Your task to perform on an android device: Clear the shopping cart on target. Add "macbook" to the cart on target, then select checkout. Image 0: 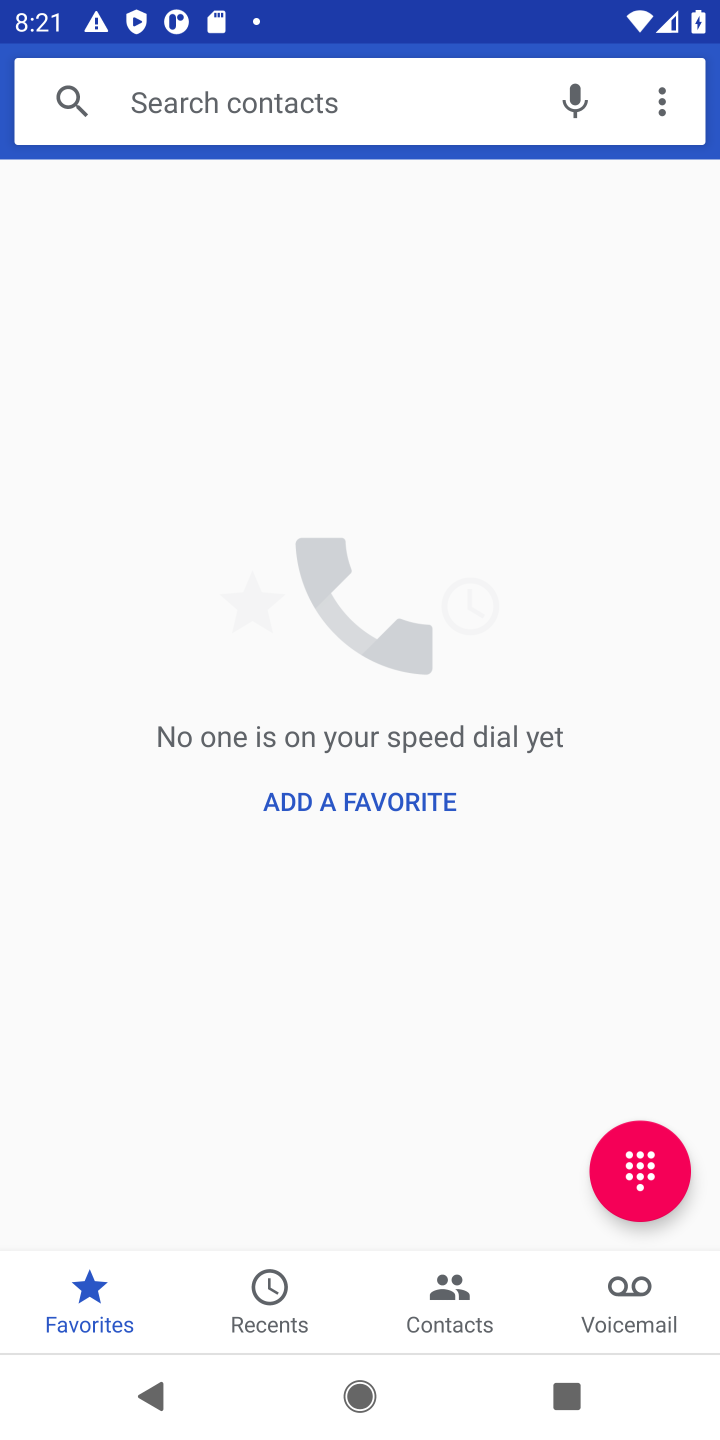
Step 0: press home button
Your task to perform on an android device: Clear the shopping cart on target. Add "macbook" to the cart on target, then select checkout. Image 1: 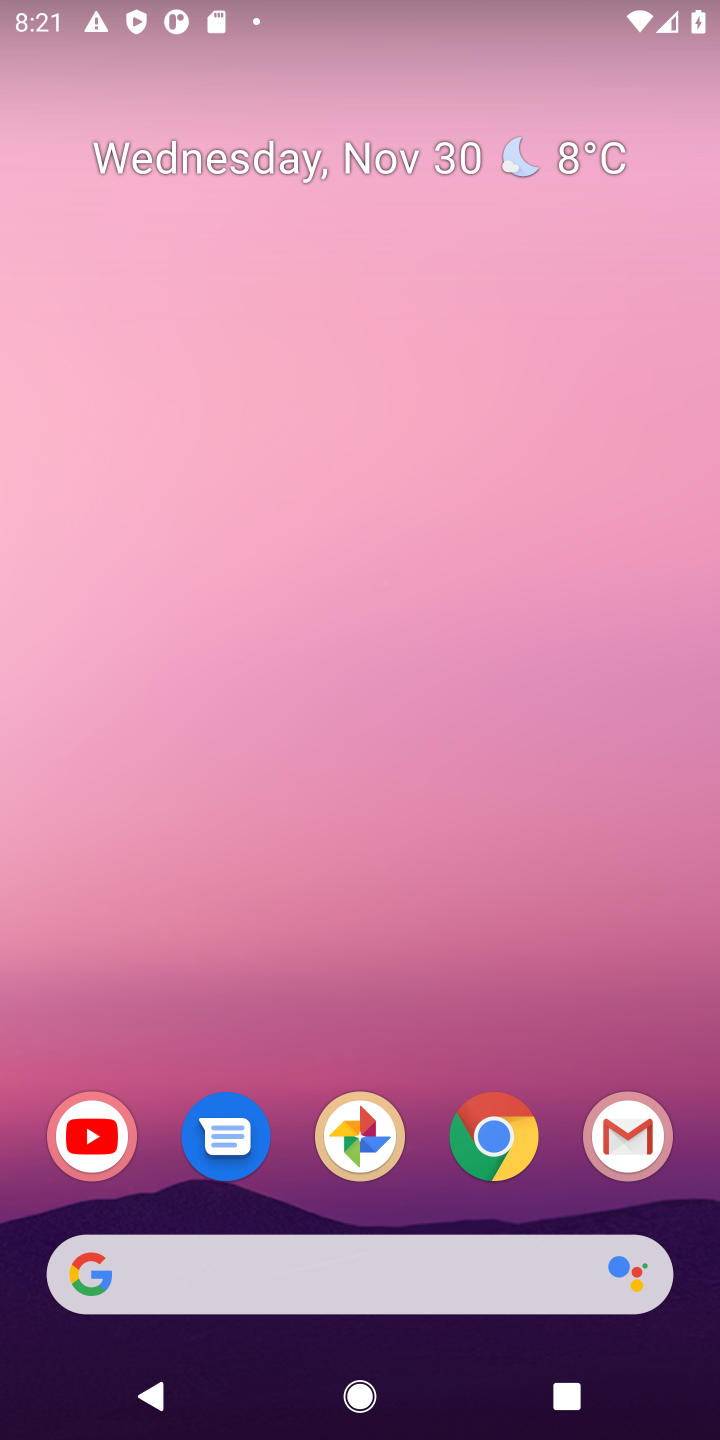
Step 1: click (509, 1133)
Your task to perform on an android device: Clear the shopping cart on target. Add "macbook" to the cart on target, then select checkout. Image 2: 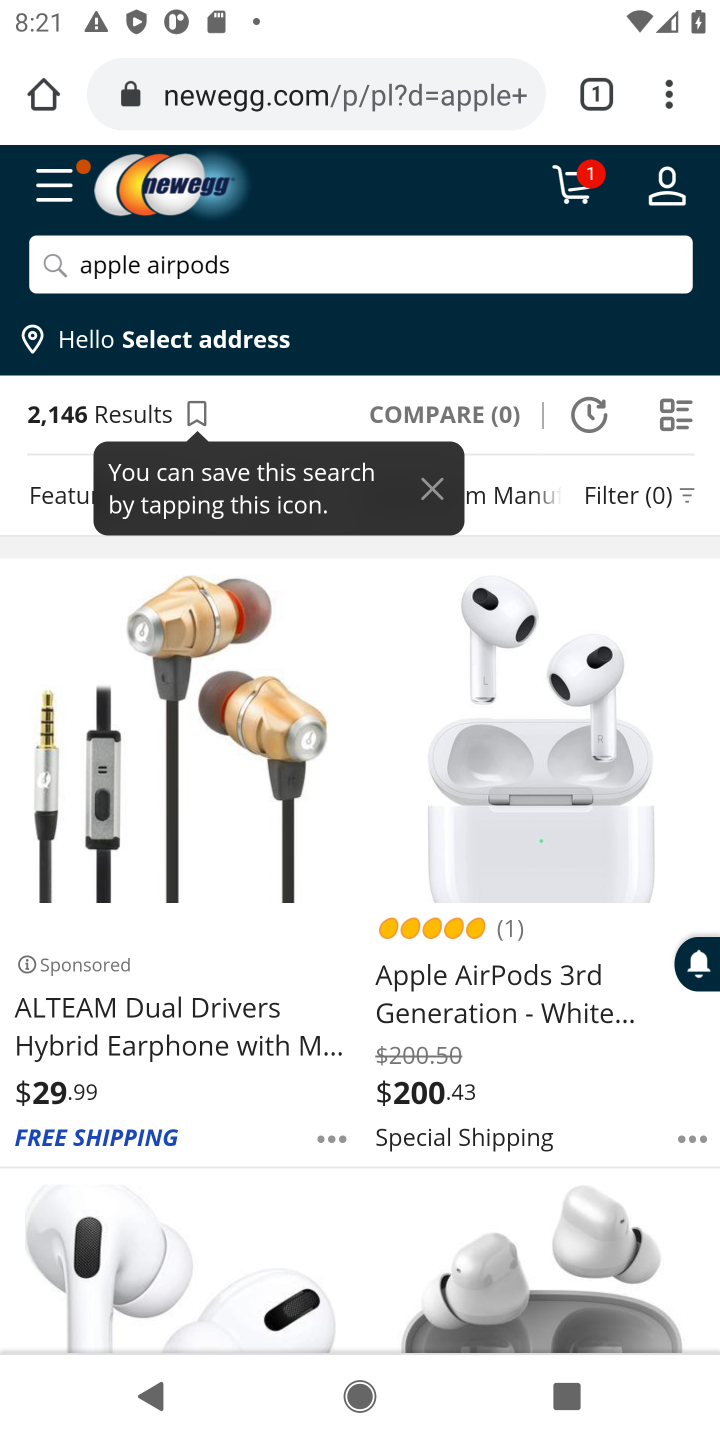
Step 2: click (268, 102)
Your task to perform on an android device: Clear the shopping cart on target. Add "macbook" to the cart on target, then select checkout. Image 3: 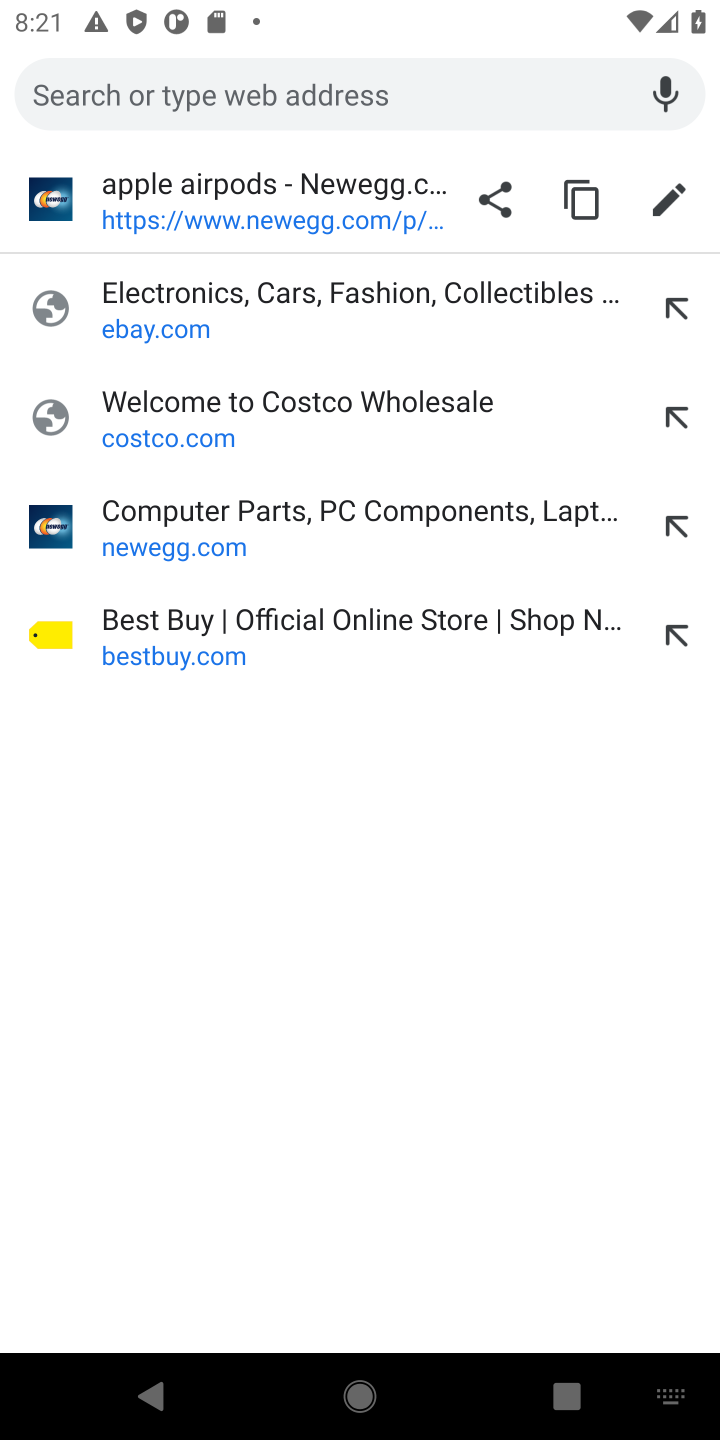
Step 3: type "target.com"
Your task to perform on an android device: Clear the shopping cart on target. Add "macbook" to the cart on target, then select checkout. Image 4: 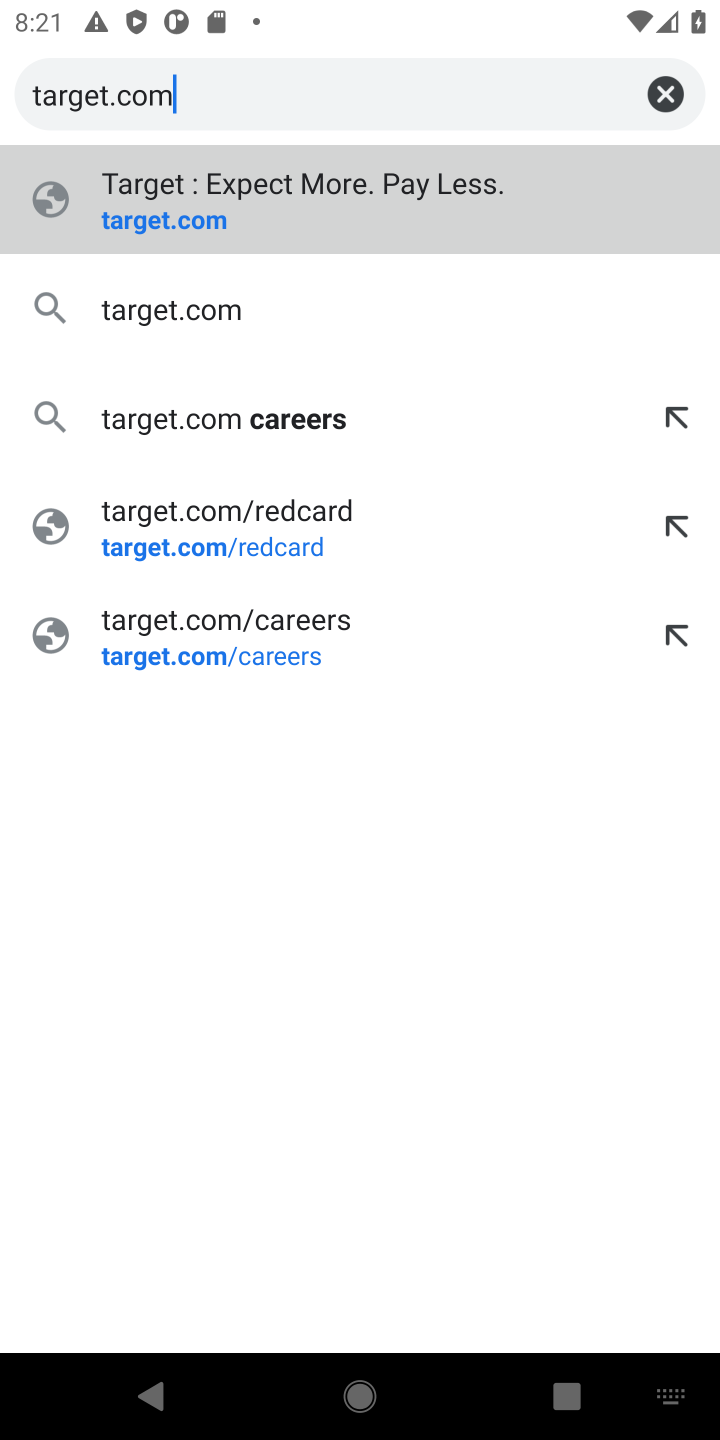
Step 4: click (165, 219)
Your task to perform on an android device: Clear the shopping cart on target. Add "macbook" to the cart on target, then select checkout. Image 5: 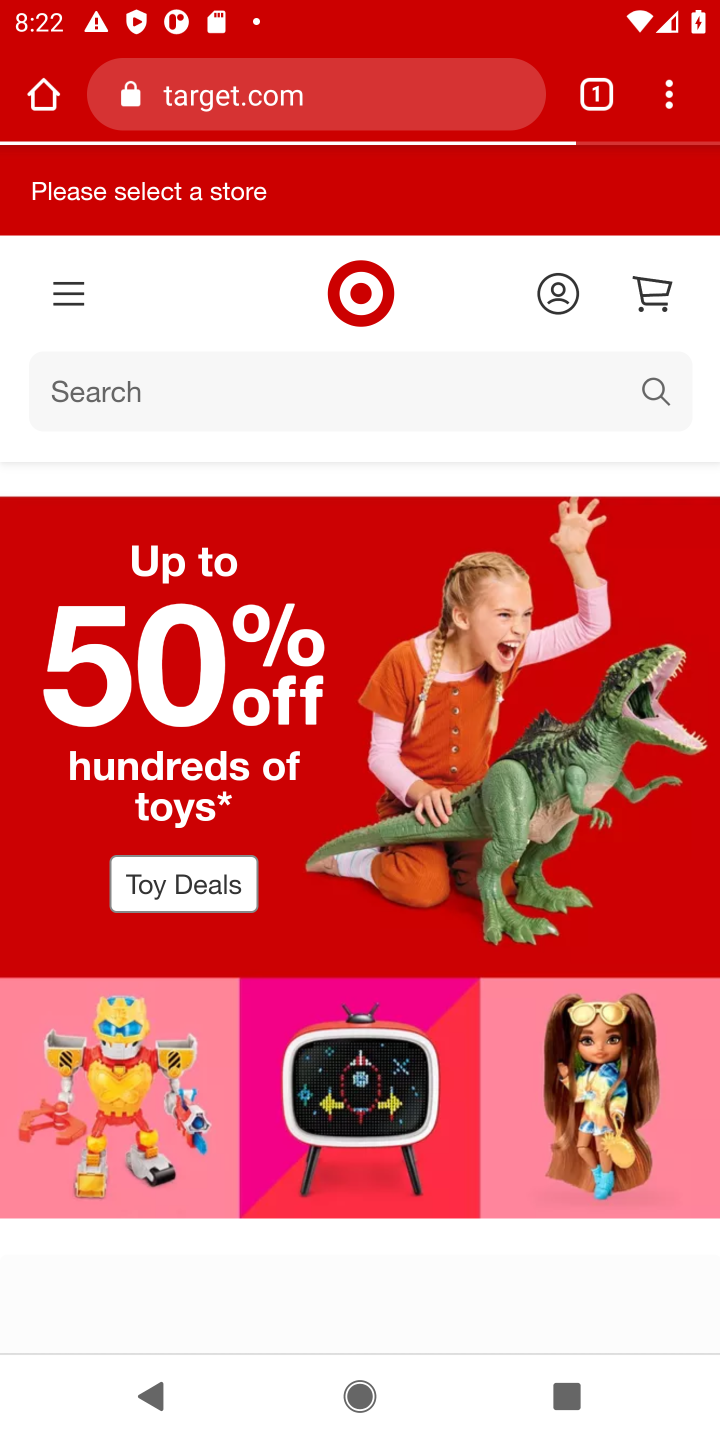
Step 5: click (650, 298)
Your task to perform on an android device: Clear the shopping cart on target. Add "macbook" to the cart on target, then select checkout. Image 6: 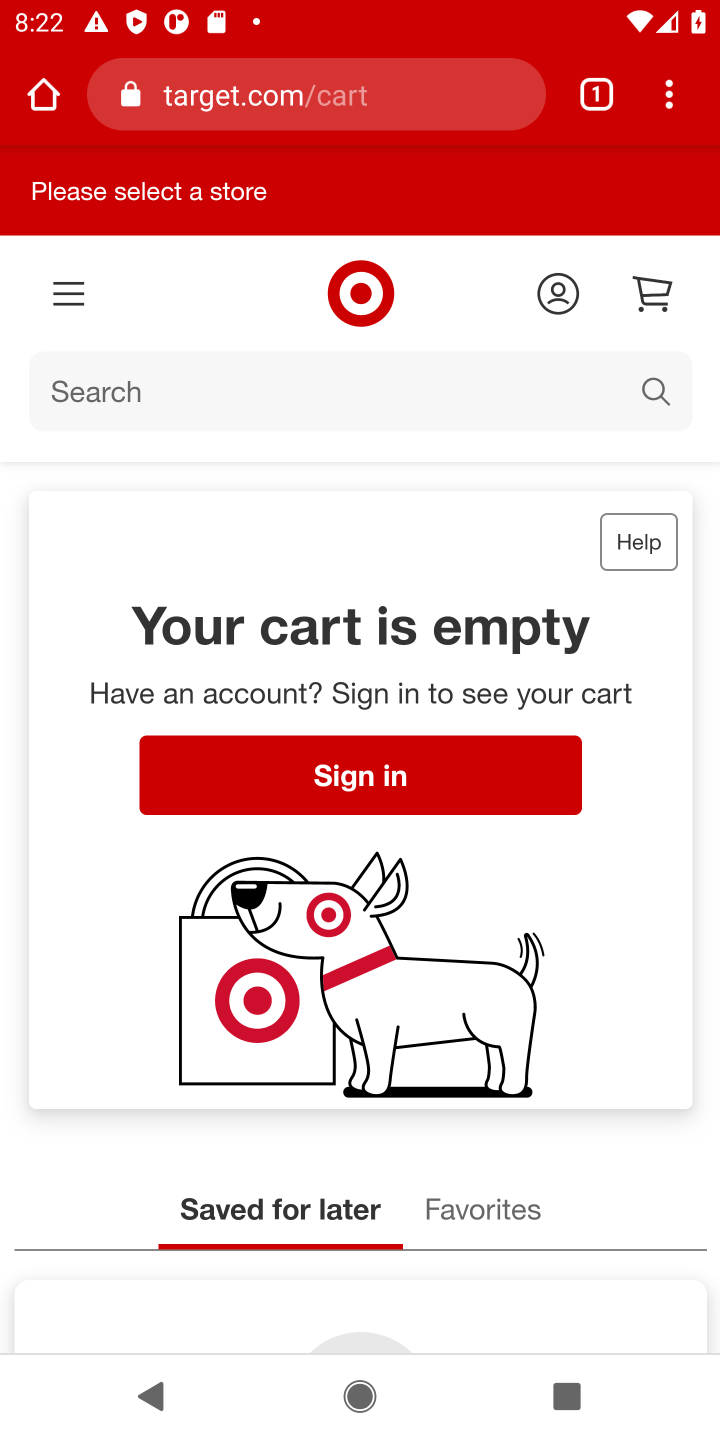
Step 6: click (120, 397)
Your task to perform on an android device: Clear the shopping cart on target. Add "macbook" to the cart on target, then select checkout. Image 7: 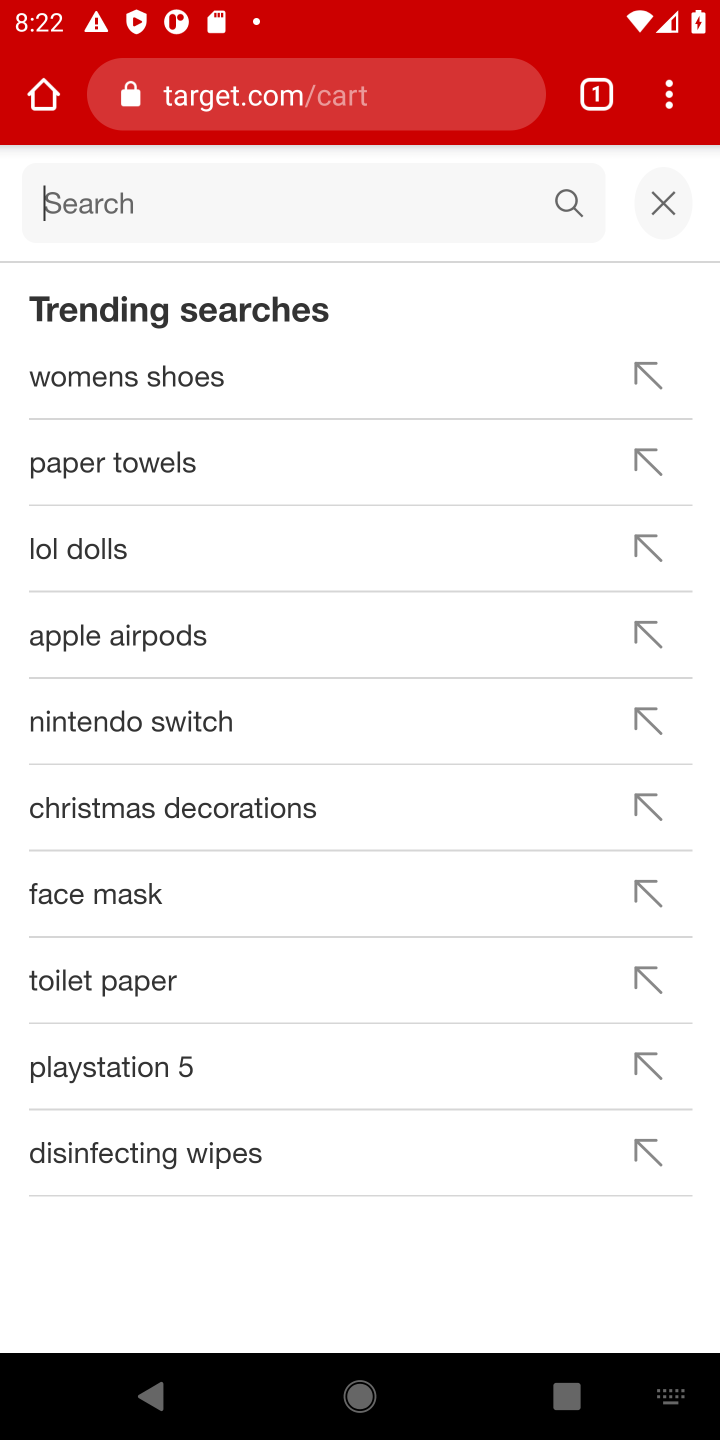
Step 7: type "macbook"
Your task to perform on an android device: Clear the shopping cart on target. Add "macbook" to the cart on target, then select checkout. Image 8: 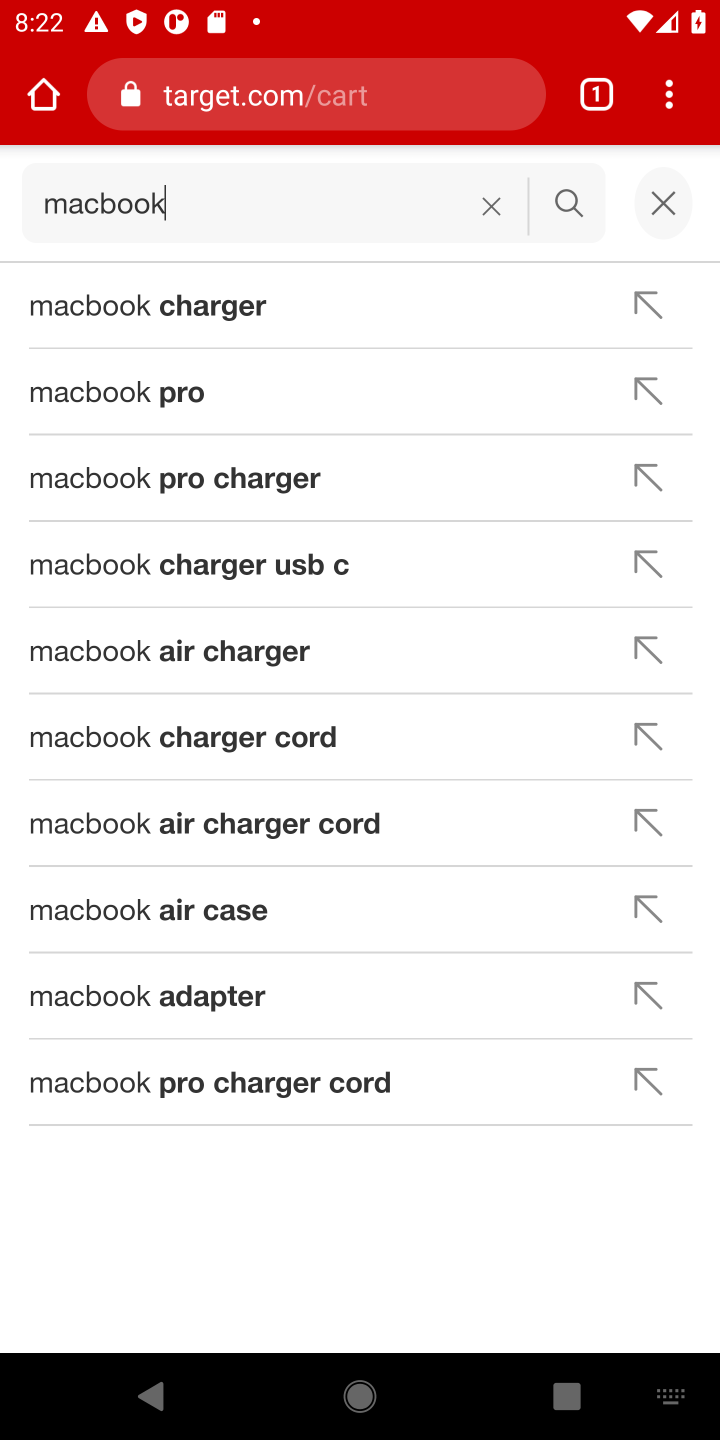
Step 8: click (562, 206)
Your task to perform on an android device: Clear the shopping cart on target. Add "macbook" to the cart on target, then select checkout. Image 9: 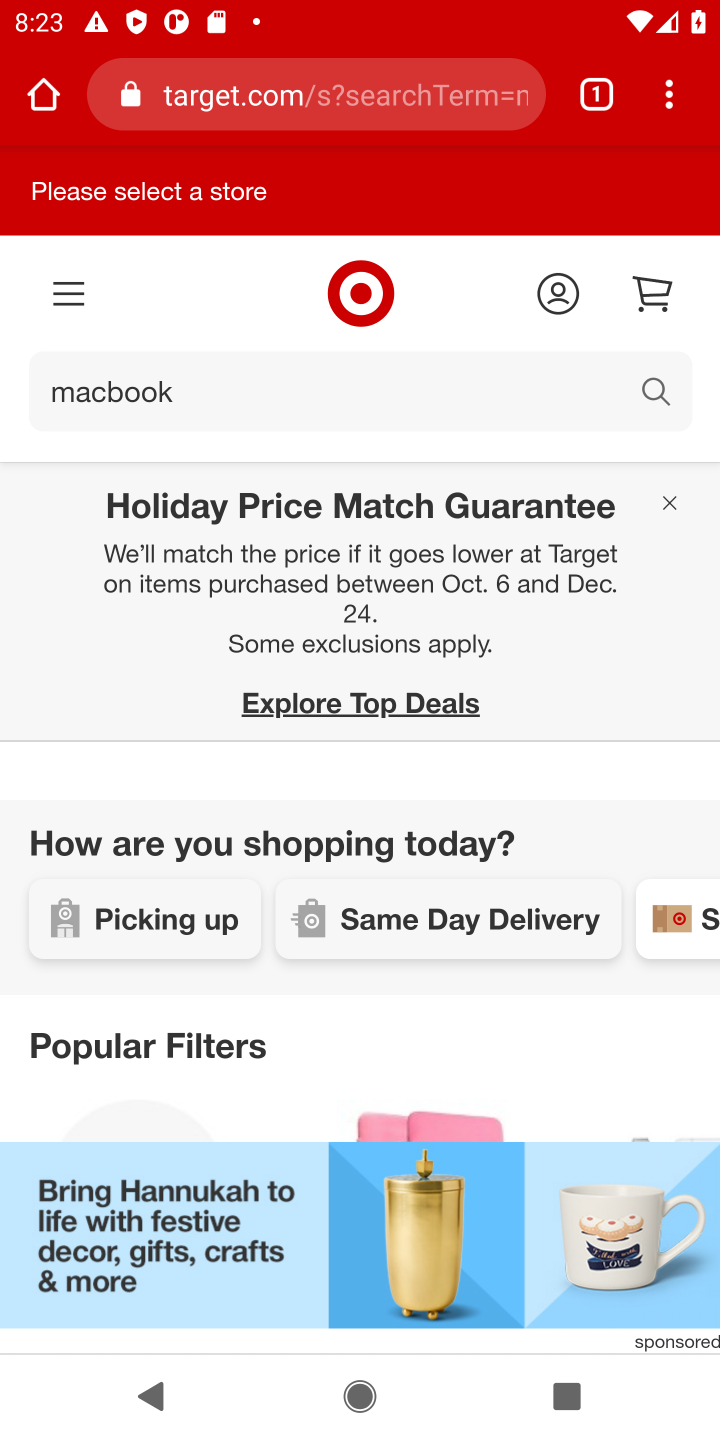
Step 9: drag from (317, 989) to (364, 421)
Your task to perform on an android device: Clear the shopping cart on target. Add "macbook" to the cart on target, then select checkout. Image 10: 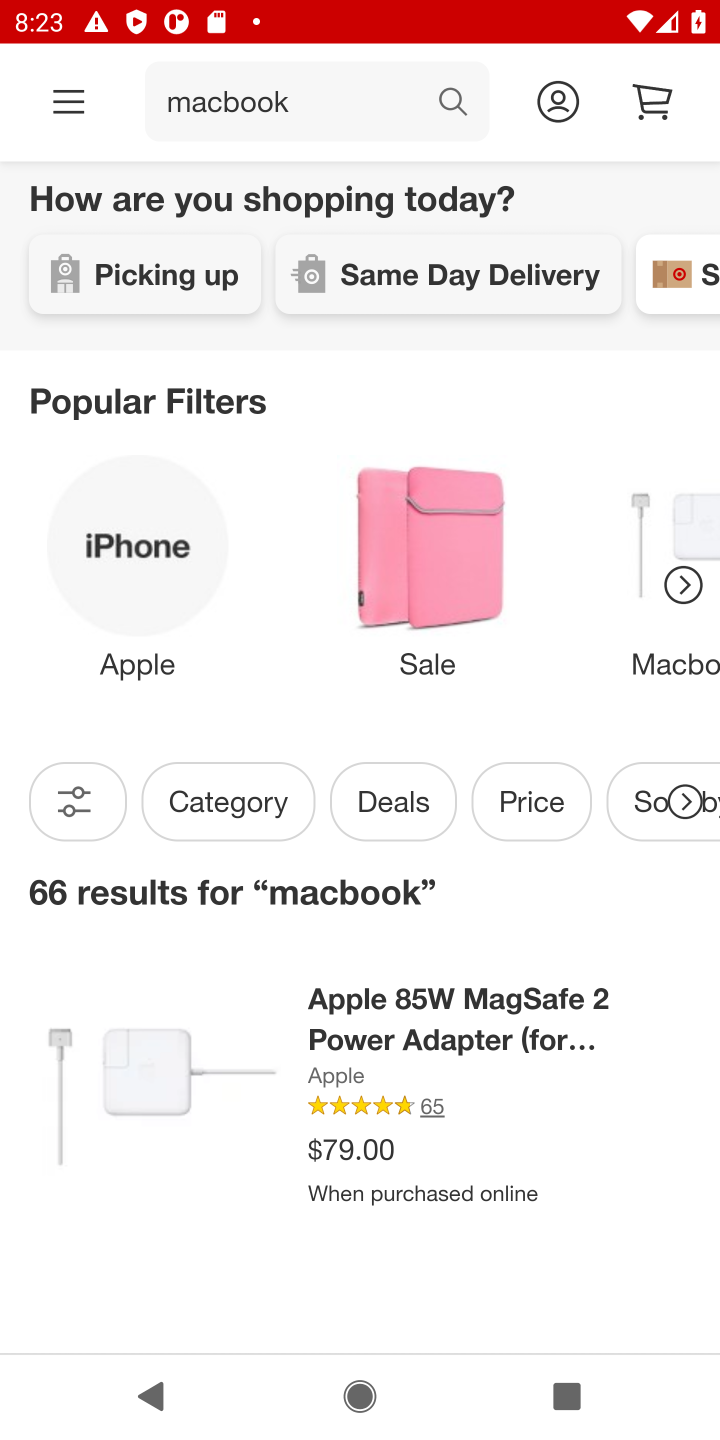
Step 10: drag from (255, 841) to (304, 495)
Your task to perform on an android device: Clear the shopping cart on target. Add "macbook" to the cart on target, then select checkout. Image 11: 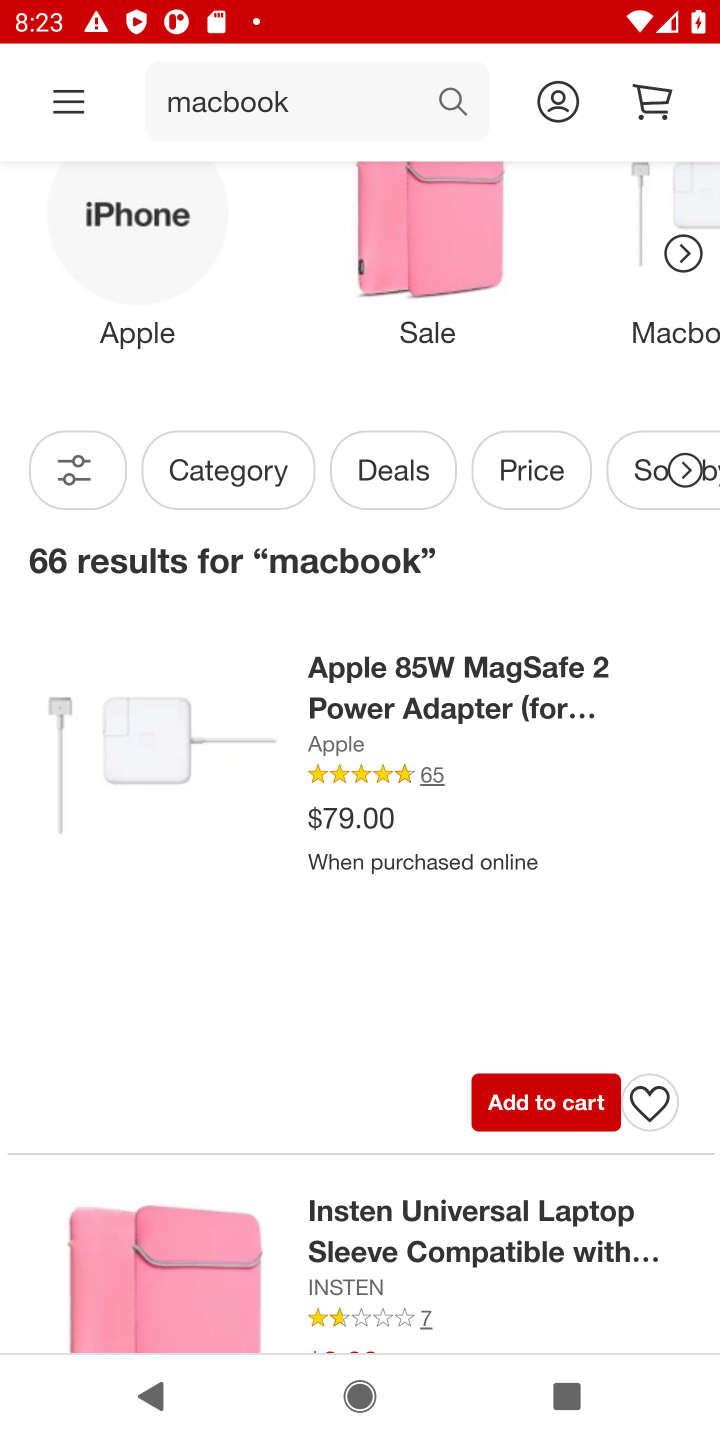
Step 11: click (450, 708)
Your task to perform on an android device: Clear the shopping cart on target. Add "macbook" to the cart on target, then select checkout. Image 12: 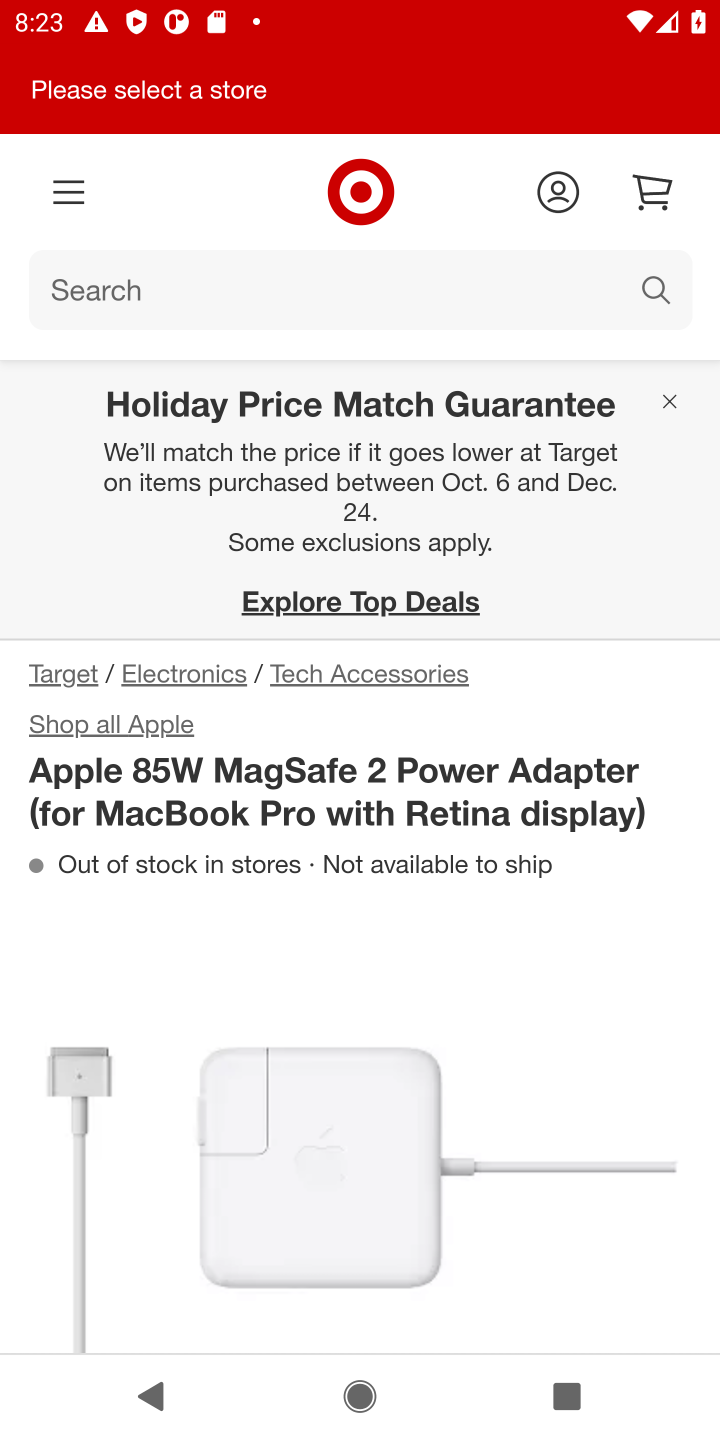
Step 12: drag from (420, 882) to (475, 354)
Your task to perform on an android device: Clear the shopping cart on target. Add "macbook" to the cart on target, then select checkout. Image 13: 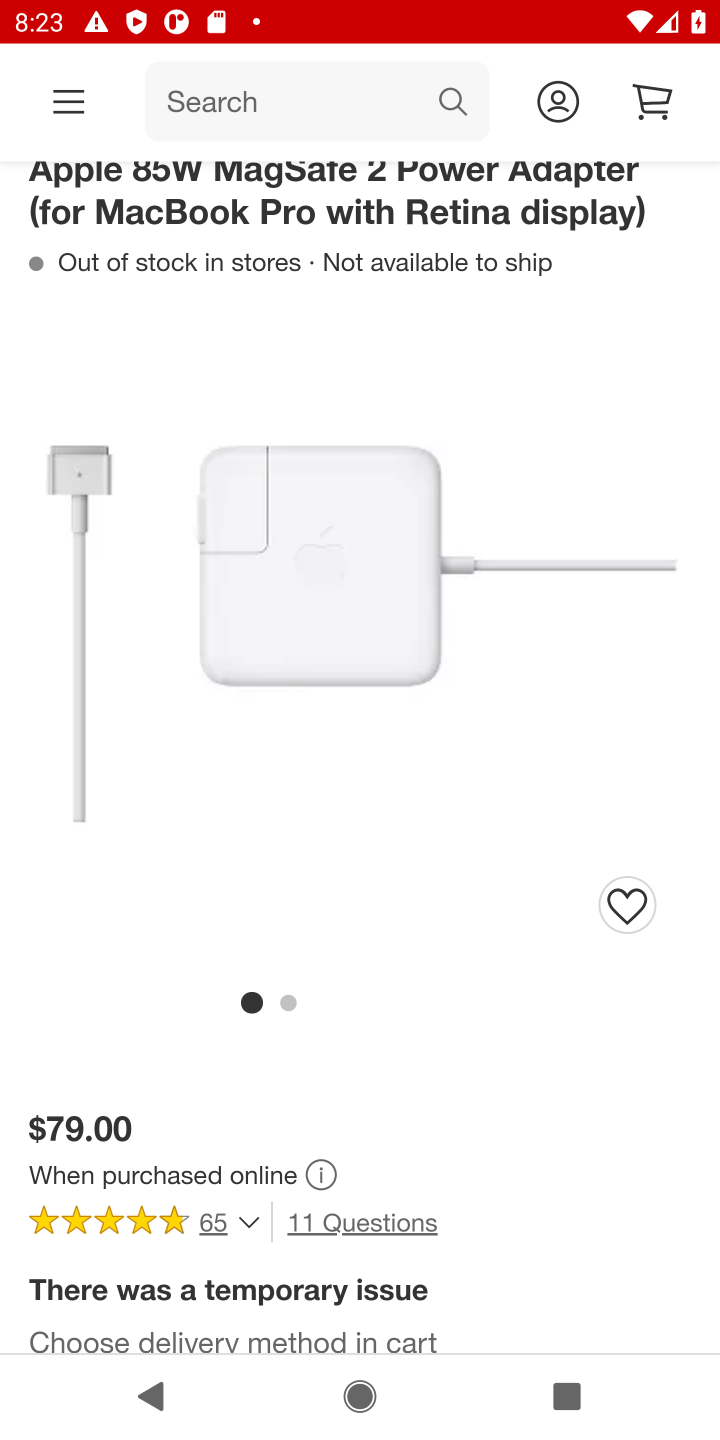
Step 13: drag from (521, 925) to (521, 419)
Your task to perform on an android device: Clear the shopping cart on target. Add "macbook" to the cart on target, then select checkout. Image 14: 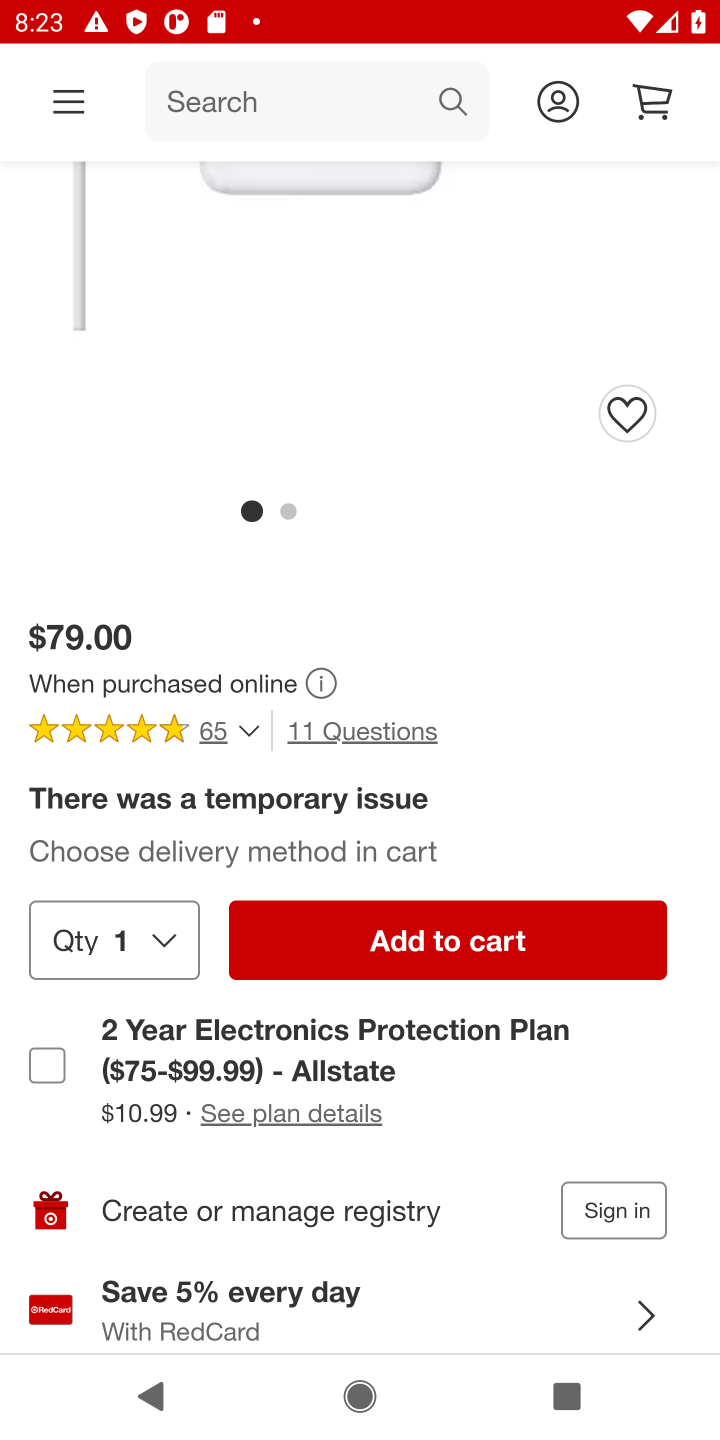
Step 14: click (522, 941)
Your task to perform on an android device: Clear the shopping cart on target. Add "macbook" to the cart on target, then select checkout. Image 15: 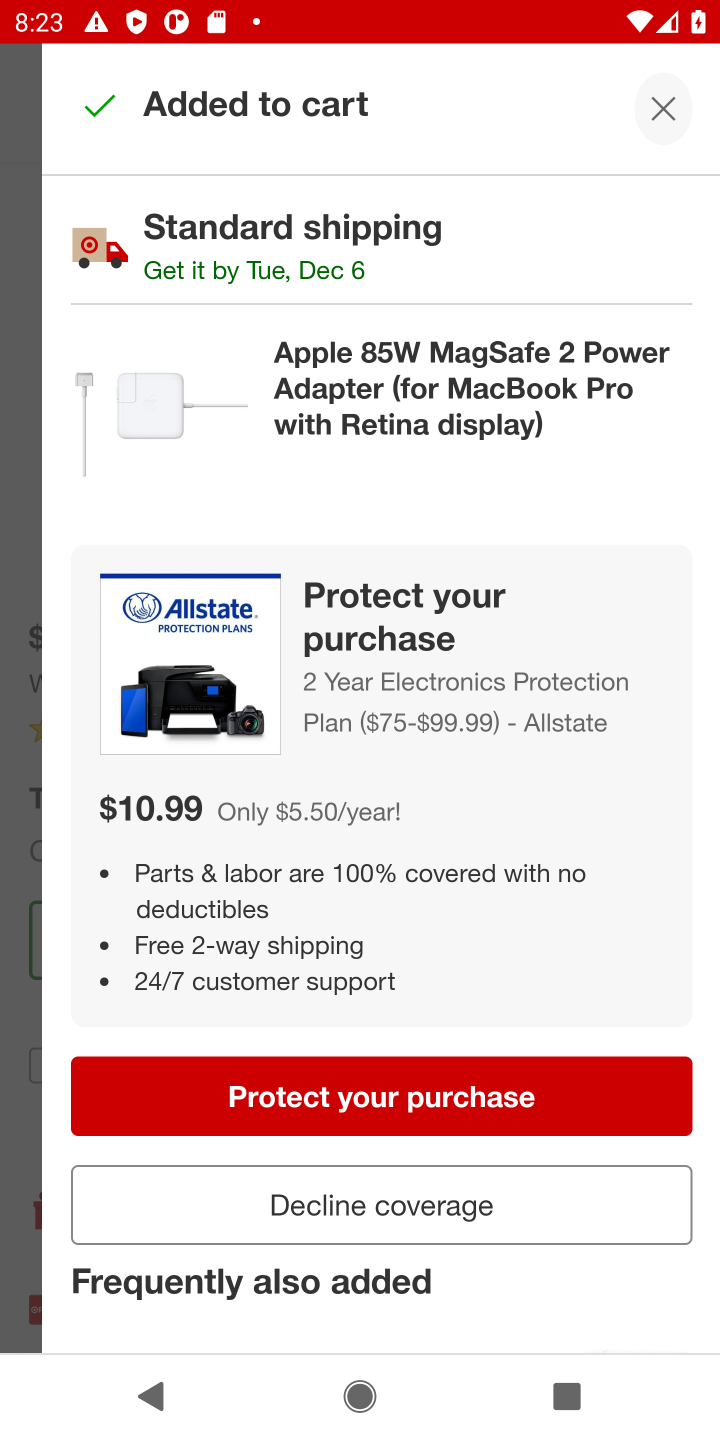
Step 15: click (657, 120)
Your task to perform on an android device: Clear the shopping cart on target. Add "macbook" to the cart on target, then select checkout. Image 16: 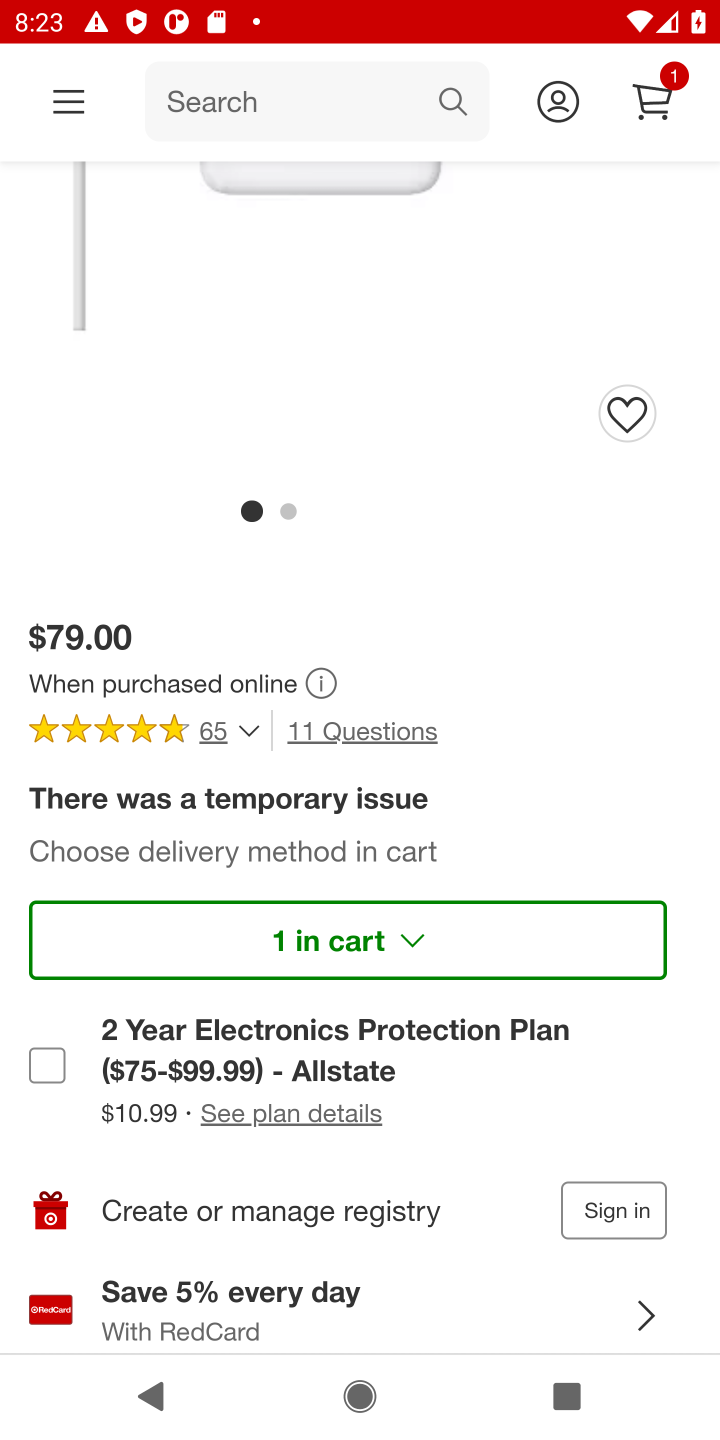
Step 16: click (661, 106)
Your task to perform on an android device: Clear the shopping cart on target. Add "macbook" to the cart on target, then select checkout. Image 17: 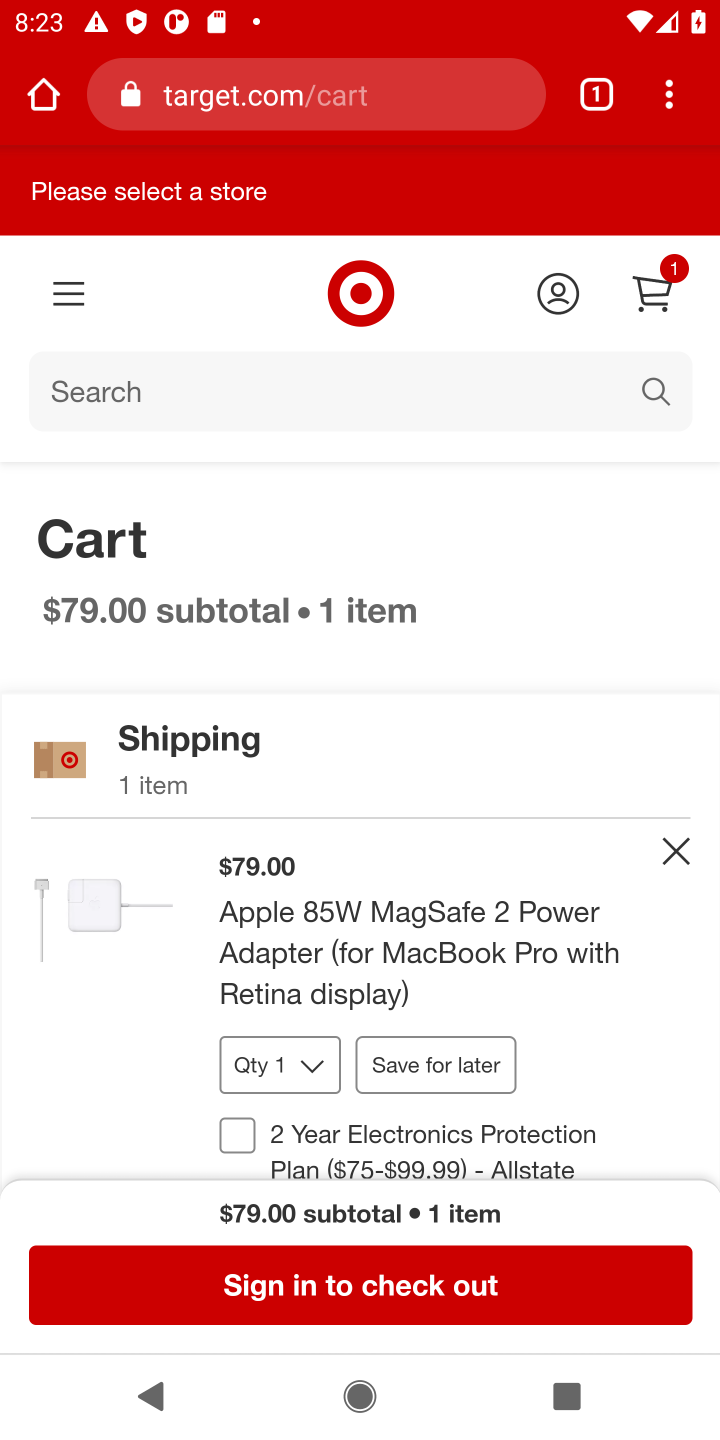
Step 17: click (384, 1261)
Your task to perform on an android device: Clear the shopping cart on target. Add "macbook" to the cart on target, then select checkout. Image 18: 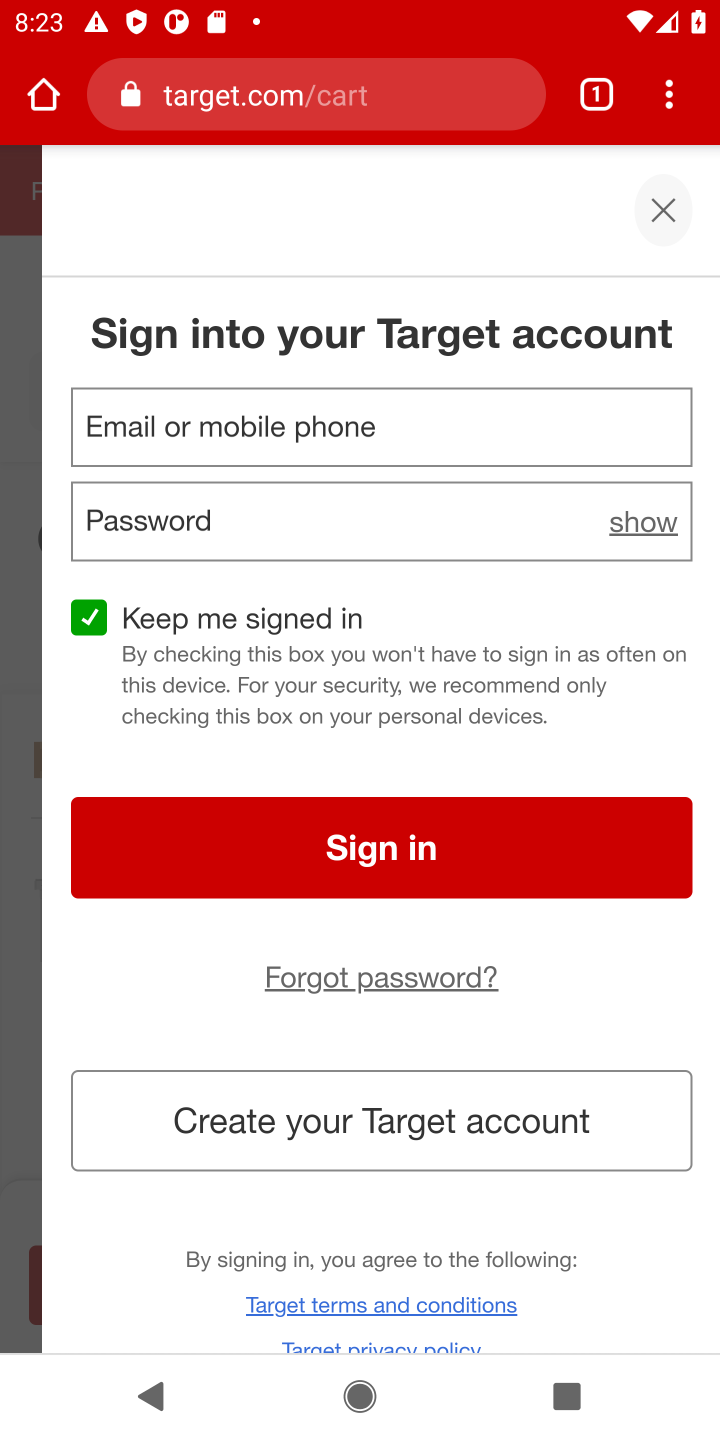
Step 18: task complete